Your task to perform on an android device: See recent photos Image 0: 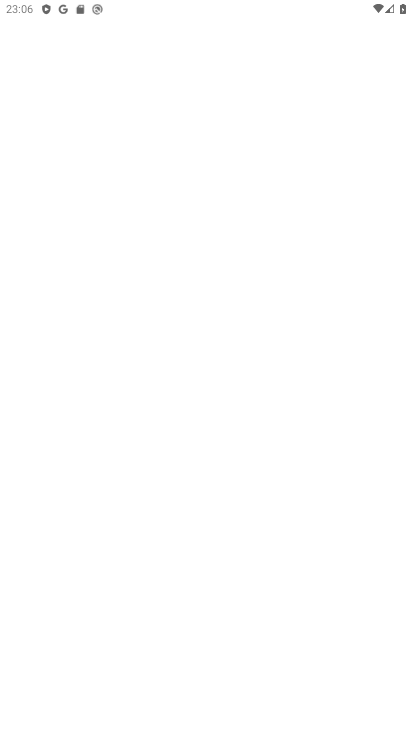
Step 0: press home button
Your task to perform on an android device: See recent photos Image 1: 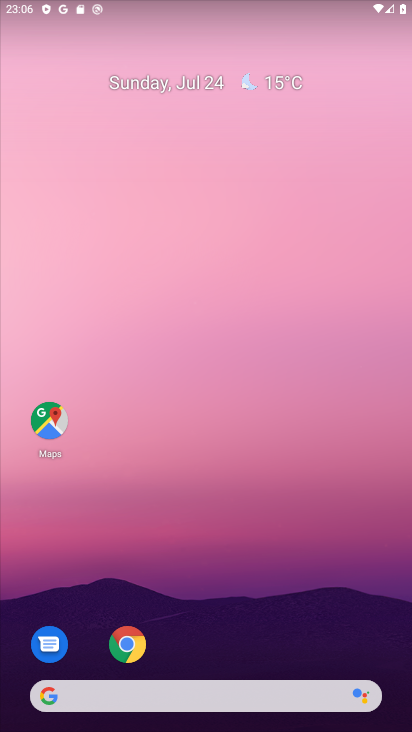
Step 1: drag from (231, 726) to (245, 160)
Your task to perform on an android device: See recent photos Image 2: 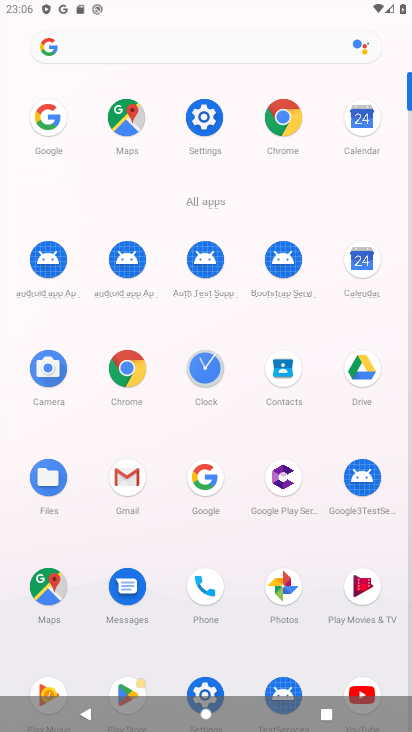
Step 2: click (282, 581)
Your task to perform on an android device: See recent photos Image 3: 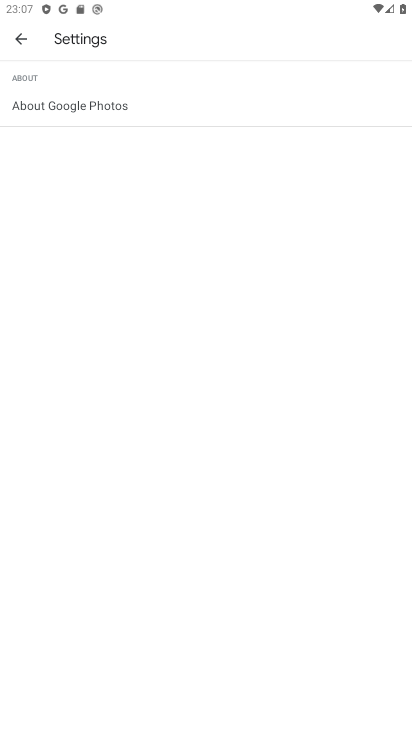
Step 3: click (23, 34)
Your task to perform on an android device: See recent photos Image 4: 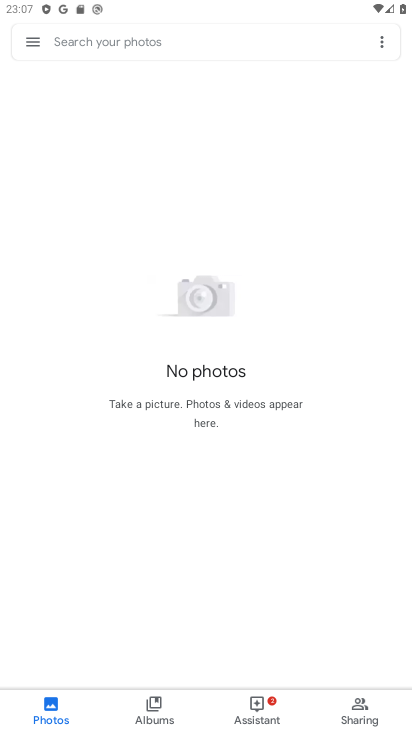
Step 4: task complete